Your task to perform on an android device: Open the Play Movies app and select the watchlist tab. Image 0: 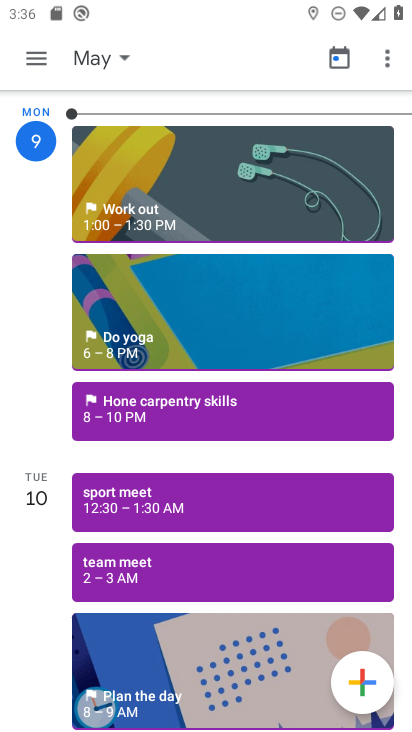
Step 0: press home button
Your task to perform on an android device: Open the Play Movies app and select the watchlist tab. Image 1: 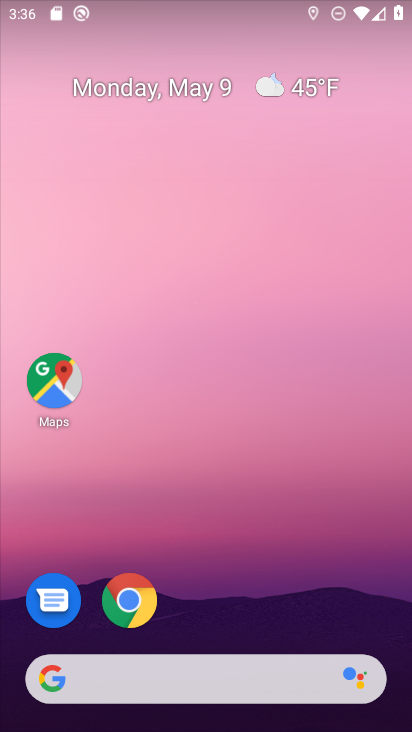
Step 1: drag from (199, 630) to (260, 141)
Your task to perform on an android device: Open the Play Movies app and select the watchlist tab. Image 2: 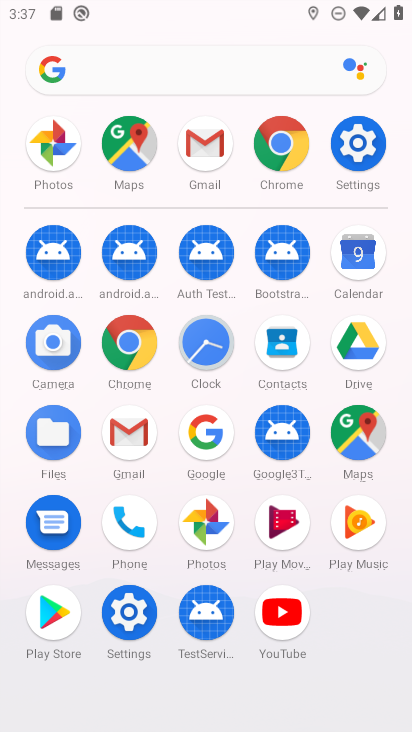
Step 2: click (307, 516)
Your task to perform on an android device: Open the Play Movies app and select the watchlist tab. Image 3: 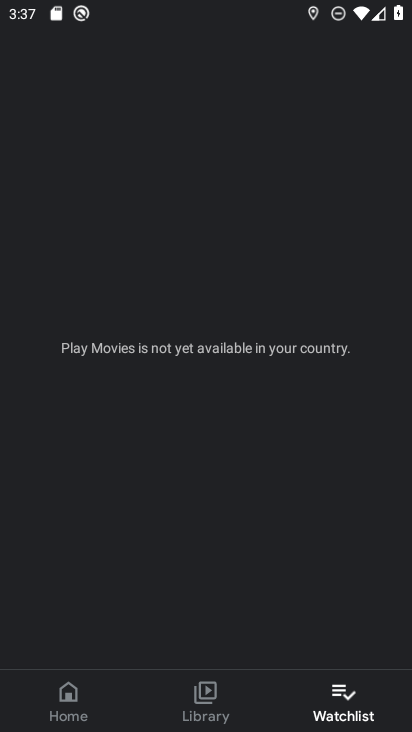
Step 3: click (326, 687)
Your task to perform on an android device: Open the Play Movies app and select the watchlist tab. Image 4: 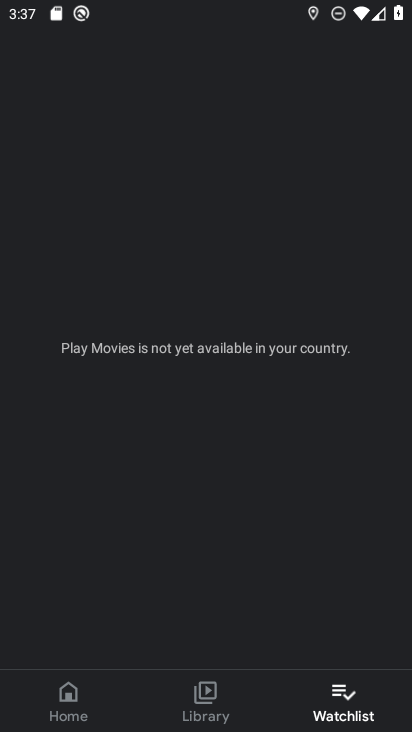
Step 4: task complete